Your task to perform on an android device: turn on airplane mode Image 0: 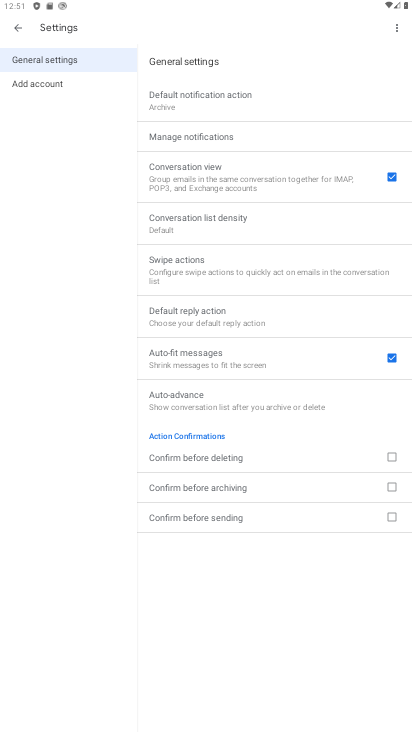
Step 0: drag from (380, 5) to (386, 663)
Your task to perform on an android device: turn on airplane mode Image 1: 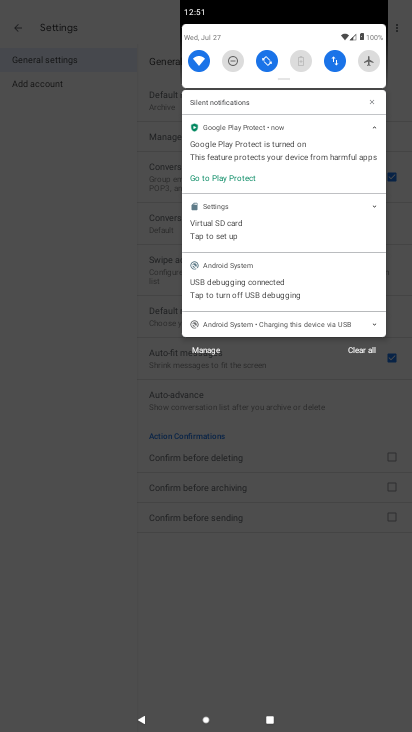
Step 1: click (376, 62)
Your task to perform on an android device: turn on airplane mode Image 2: 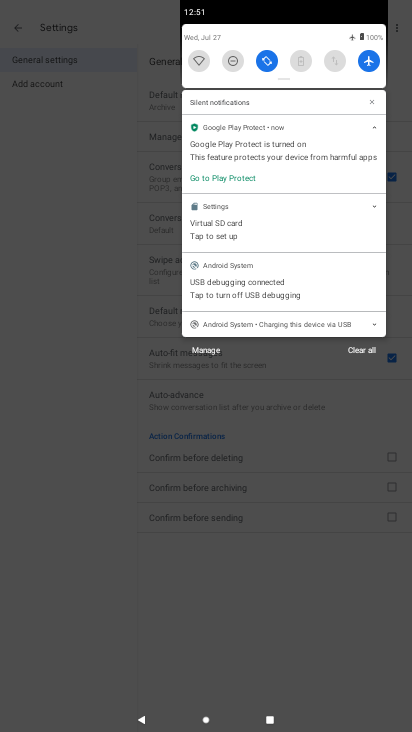
Step 2: task complete